Your task to perform on an android device: Open Android settings Image 0: 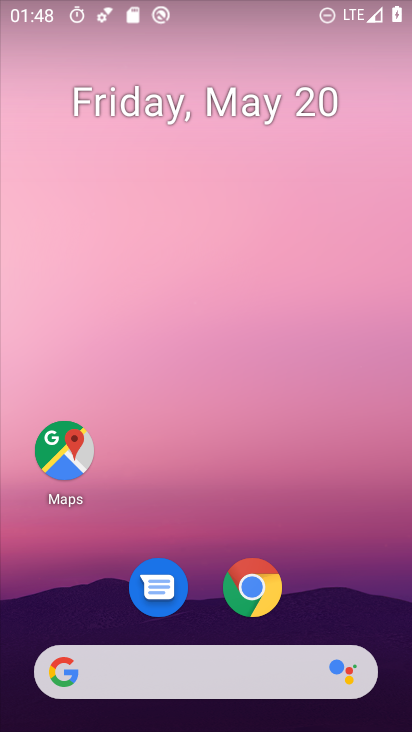
Step 0: drag from (370, 563) to (342, 242)
Your task to perform on an android device: Open Android settings Image 1: 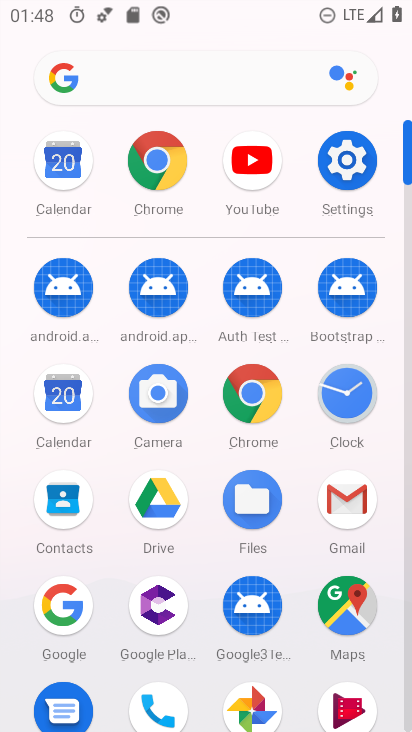
Step 1: click (365, 180)
Your task to perform on an android device: Open Android settings Image 2: 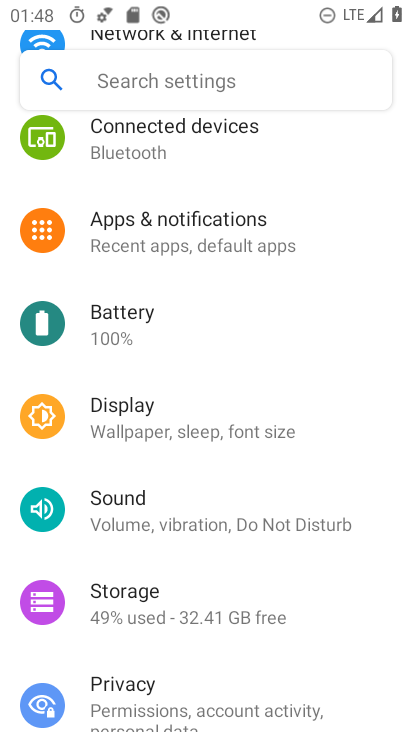
Step 2: drag from (370, 186) to (366, 267)
Your task to perform on an android device: Open Android settings Image 3: 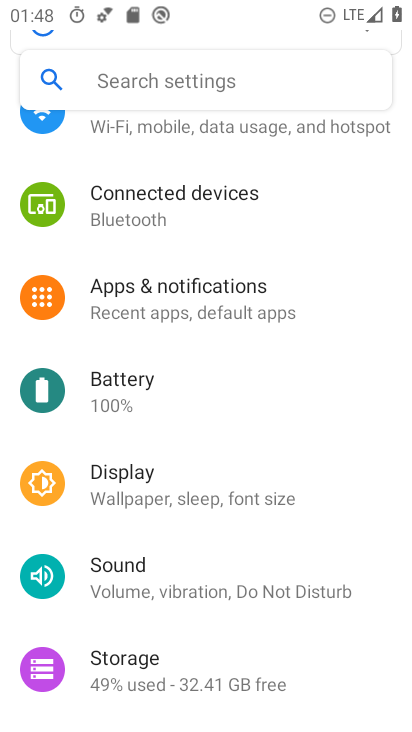
Step 3: drag from (362, 203) to (357, 302)
Your task to perform on an android device: Open Android settings Image 4: 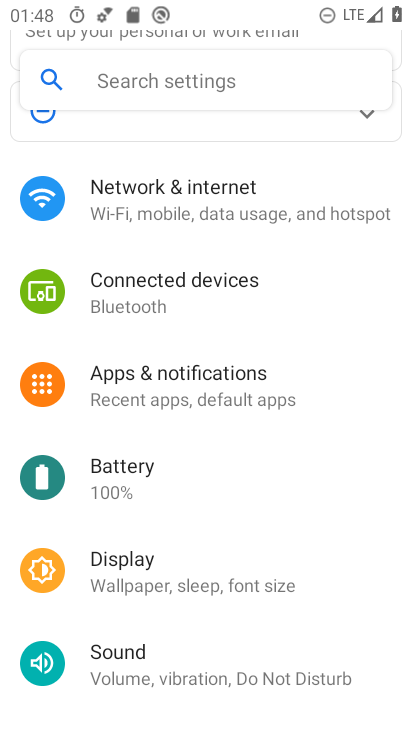
Step 4: drag from (352, 167) to (346, 368)
Your task to perform on an android device: Open Android settings Image 5: 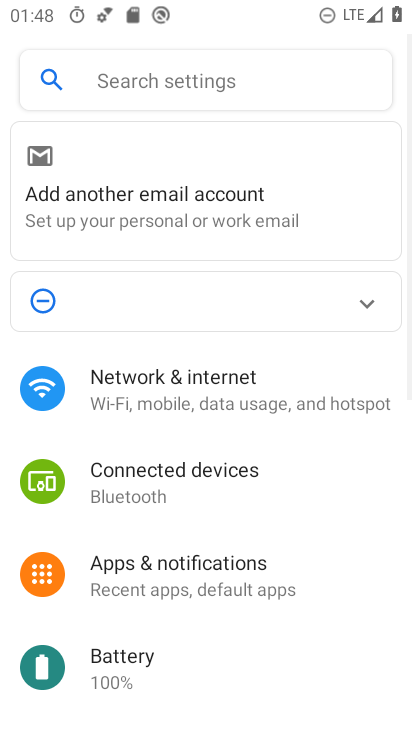
Step 5: drag from (344, 172) to (322, 336)
Your task to perform on an android device: Open Android settings Image 6: 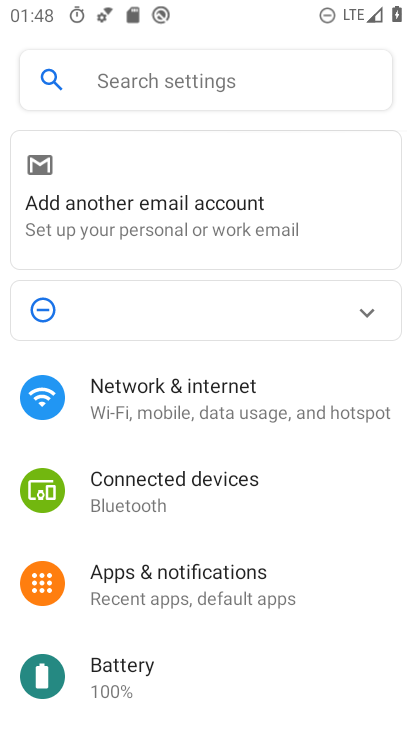
Step 6: drag from (315, 360) to (319, 264)
Your task to perform on an android device: Open Android settings Image 7: 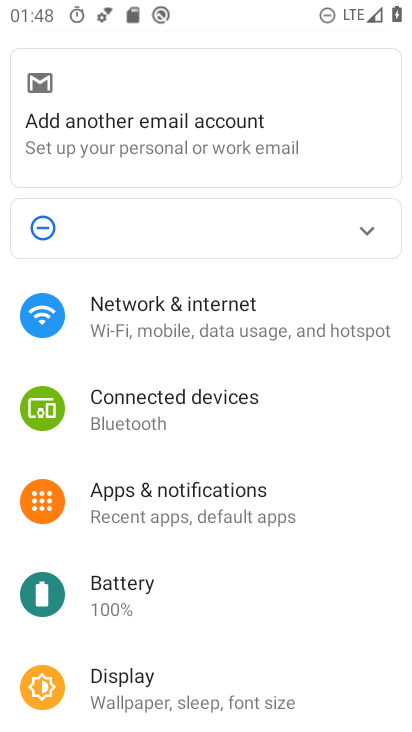
Step 7: drag from (328, 454) to (331, 333)
Your task to perform on an android device: Open Android settings Image 8: 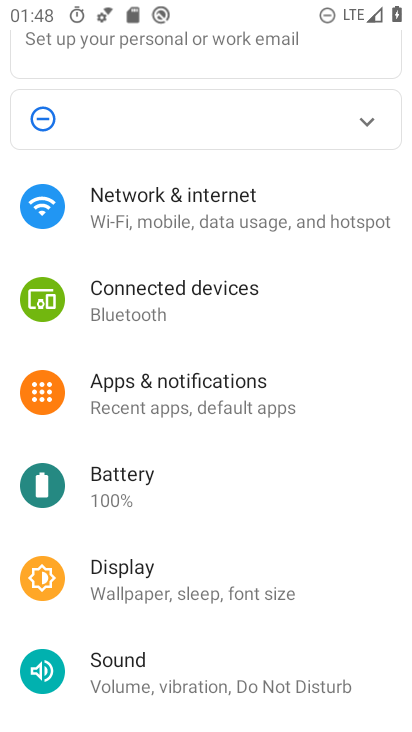
Step 8: drag from (337, 509) to (341, 386)
Your task to perform on an android device: Open Android settings Image 9: 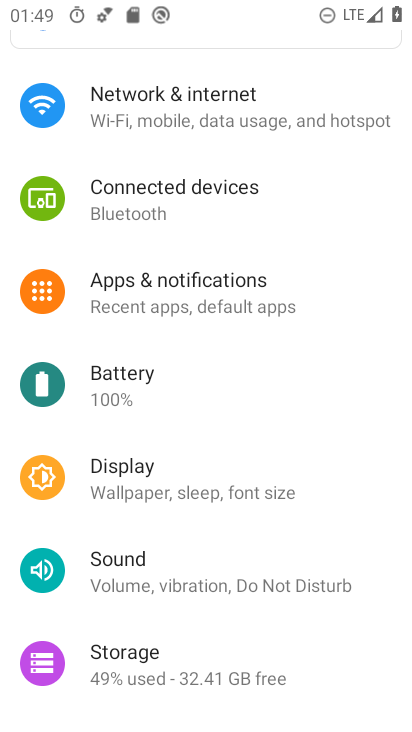
Step 9: drag from (375, 377) to (344, 251)
Your task to perform on an android device: Open Android settings Image 10: 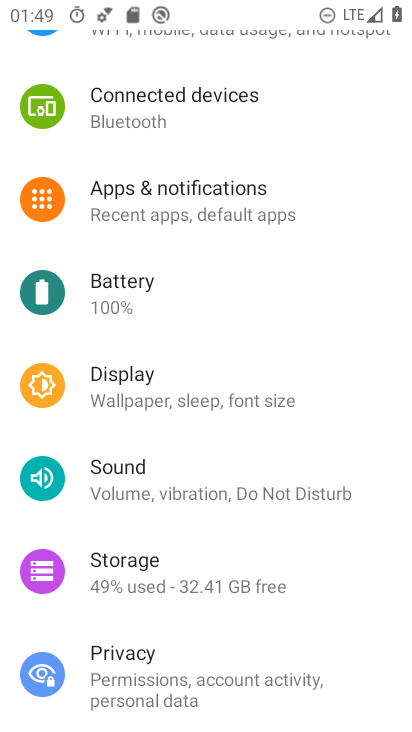
Step 10: drag from (341, 335) to (342, 191)
Your task to perform on an android device: Open Android settings Image 11: 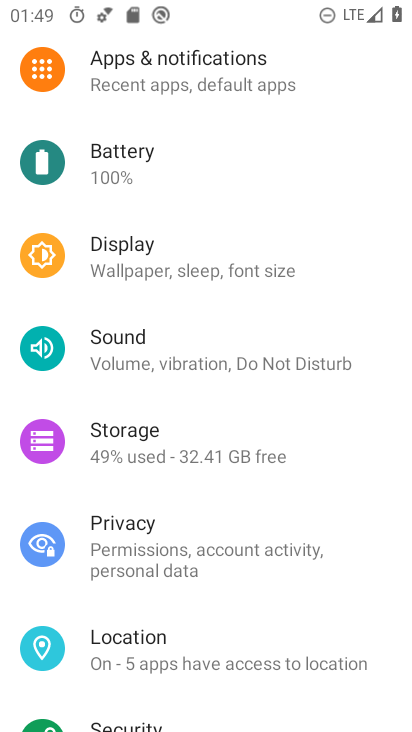
Step 11: drag from (380, 405) to (374, 277)
Your task to perform on an android device: Open Android settings Image 12: 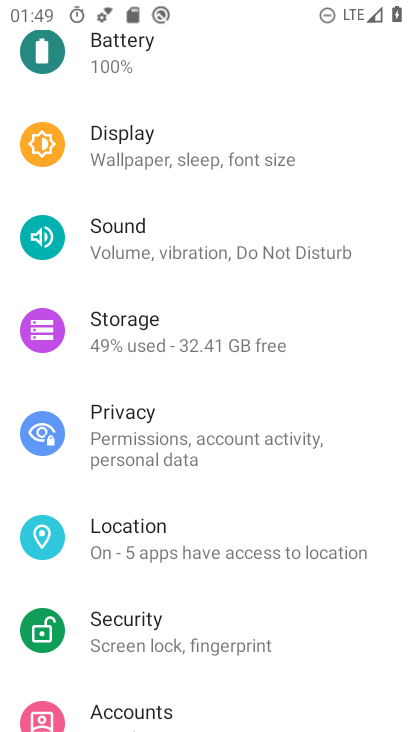
Step 12: drag from (369, 419) to (370, 316)
Your task to perform on an android device: Open Android settings Image 13: 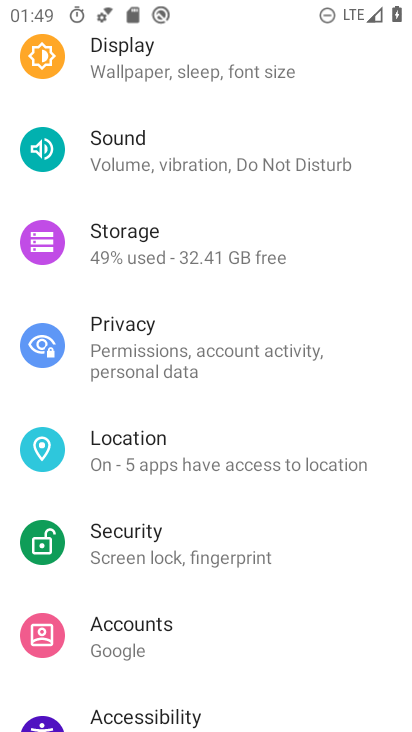
Step 13: drag from (367, 400) to (360, 302)
Your task to perform on an android device: Open Android settings Image 14: 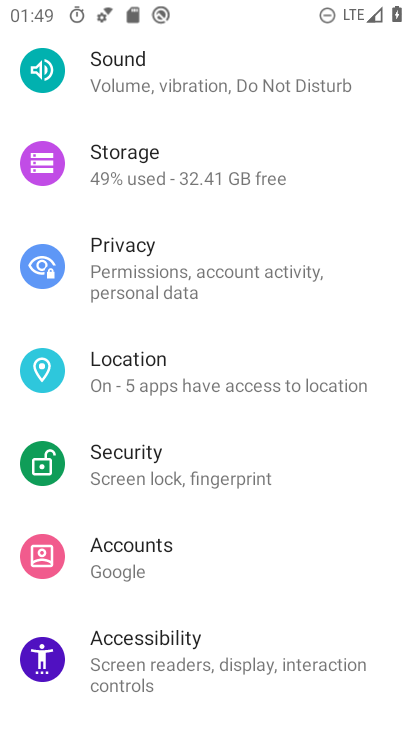
Step 14: drag from (364, 520) to (368, 358)
Your task to perform on an android device: Open Android settings Image 15: 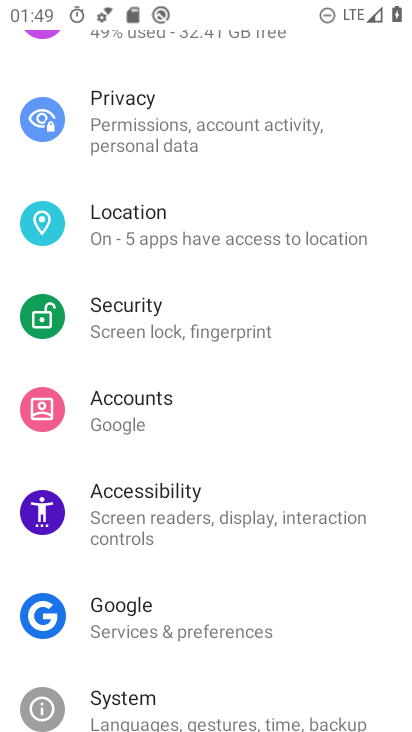
Step 15: drag from (373, 432) to (368, 327)
Your task to perform on an android device: Open Android settings Image 16: 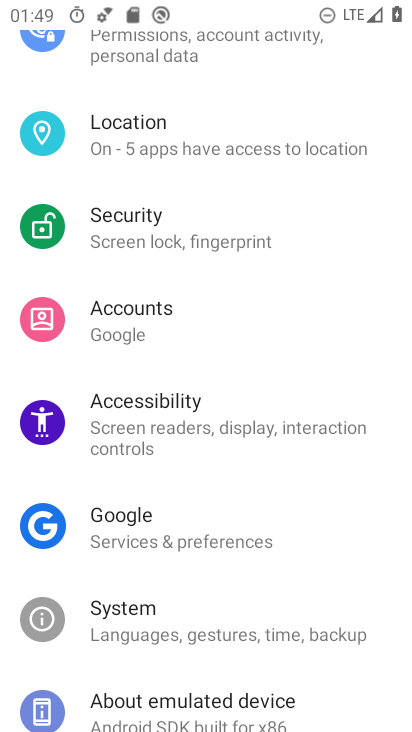
Step 16: drag from (387, 525) to (370, 404)
Your task to perform on an android device: Open Android settings Image 17: 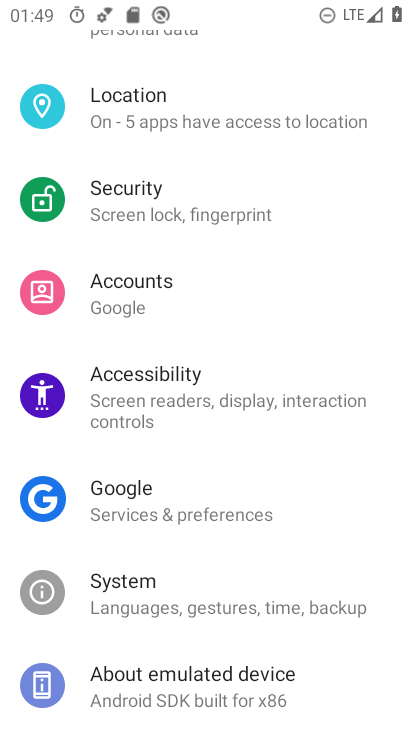
Step 17: drag from (363, 551) to (356, 428)
Your task to perform on an android device: Open Android settings Image 18: 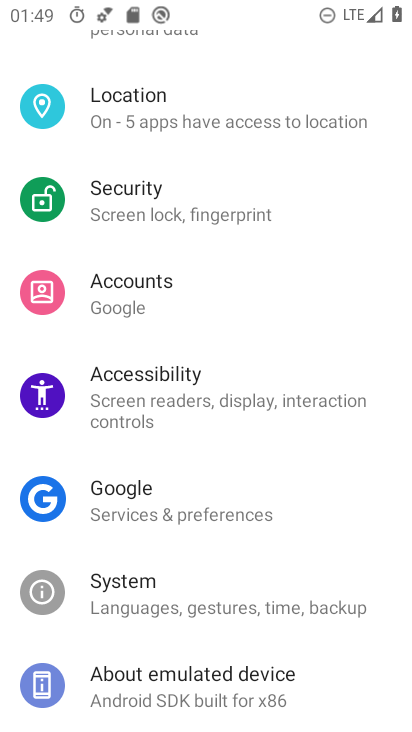
Step 18: click (351, 611)
Your task to perform on an android device: Open Android settings Image 19: 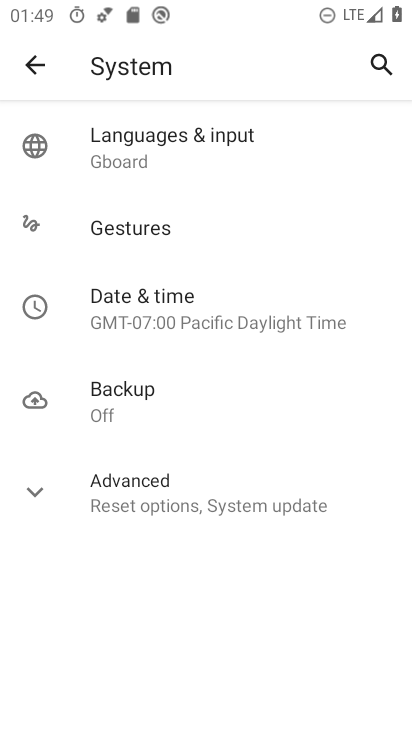
Step 19: click (315, 506)
Your task to perform on an android device: Open Android settings Image 20: 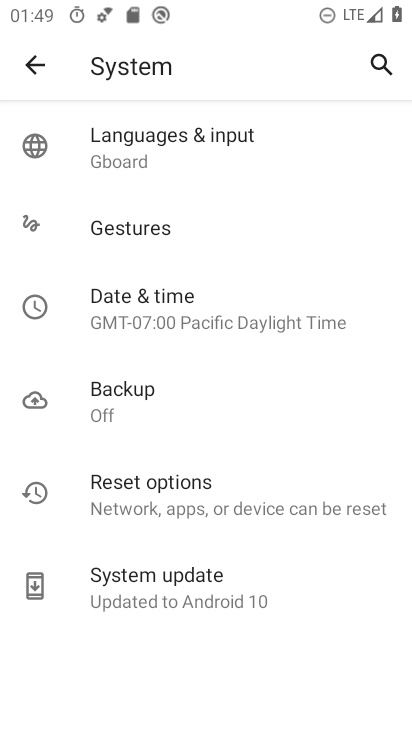
Step 20: task complete